Your task to perform on an android device: Open the calendar app, open the side menu, and click the "Day" option Image 0: 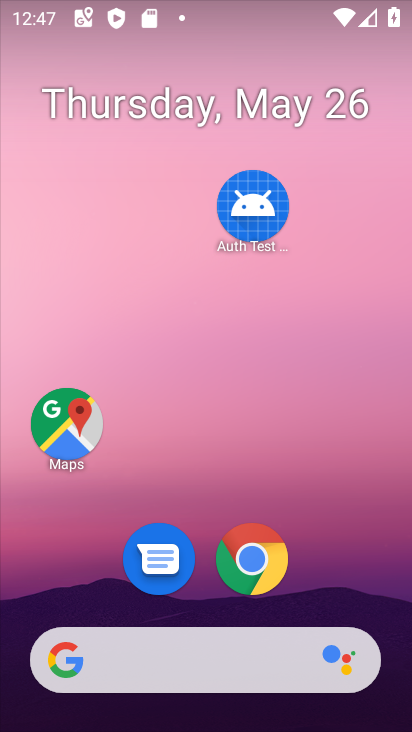
Step 0: drag from (354, 564) to (372, 152)
Your task to perform on an android device: Open the calendar app, open the side menu, and click the "Day" option Image 1: 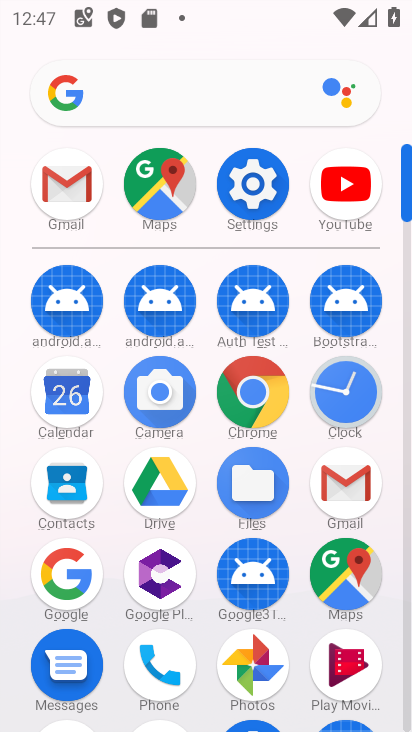
Step 1: click (65, 387)
Your task to perform on an android device: Open the calendar app, open the side menu, and click the "Day" option Image 2: 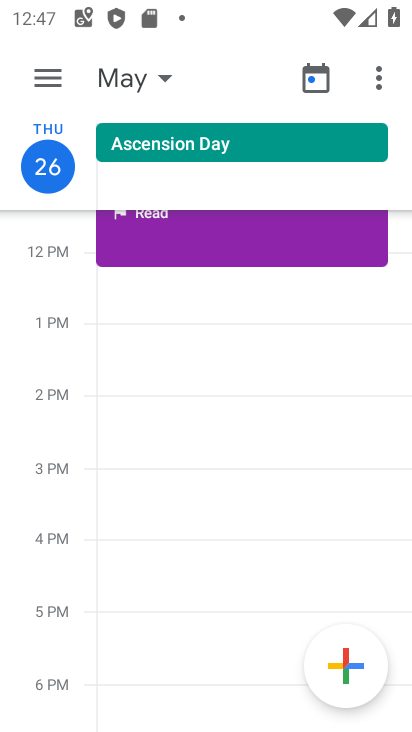
Step 2: click (56, 68)
Your task to perform on an android device: Open the calendar app, open the side menu, and click the "Day" option Image 3: 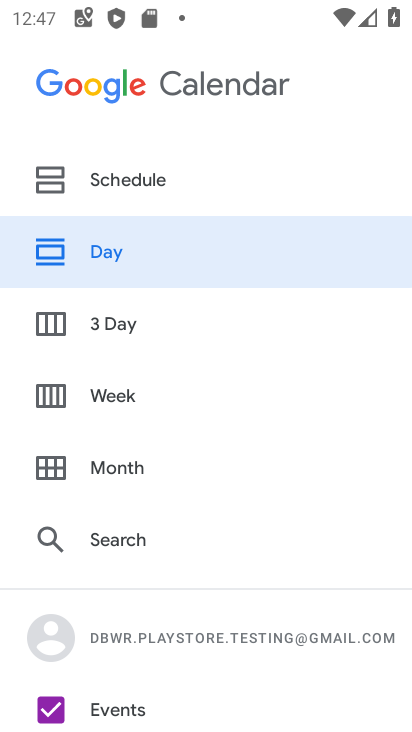
Step 3: task complete